Your task to perform on an android device: Add "bose soundlink" to the cart on walmart Image 0: 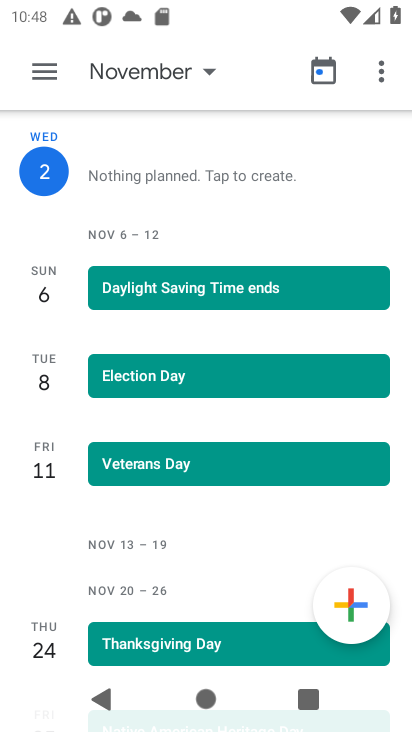
Step 0: task complete